Your task to perform on an android device: Turn on the flashlight Image 0: 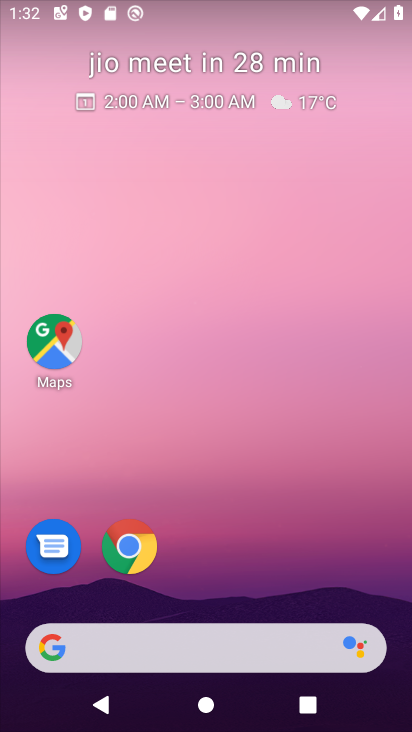
Step 0: drag from (300, 581) to (292, 382)
Your task to perform on an android device: Turn on the flashlight Image 1: 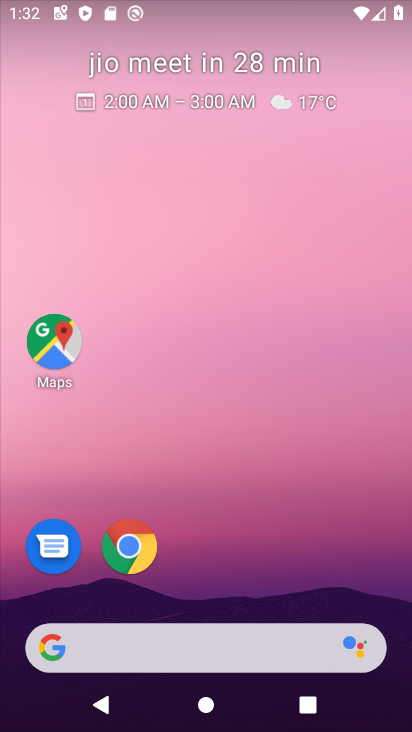
Step 1: drag from (293, 595) to (348, 75)
Your task to perform on an android device: Turn on the flashlight Image 2: 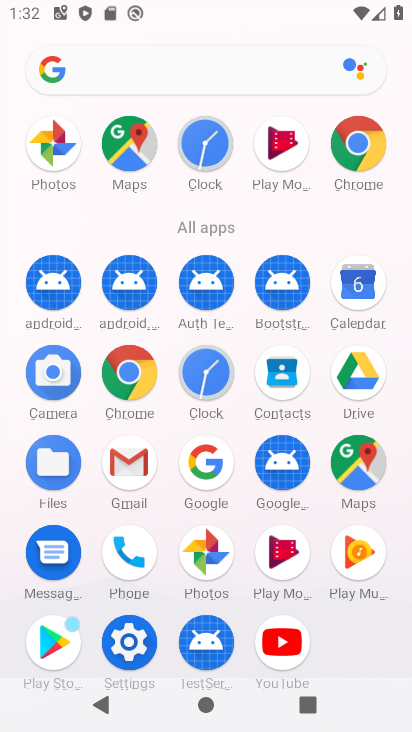
Step 2: click (146, 640)
Your task to perform on an android device: Turn on the flashlight Image 3: 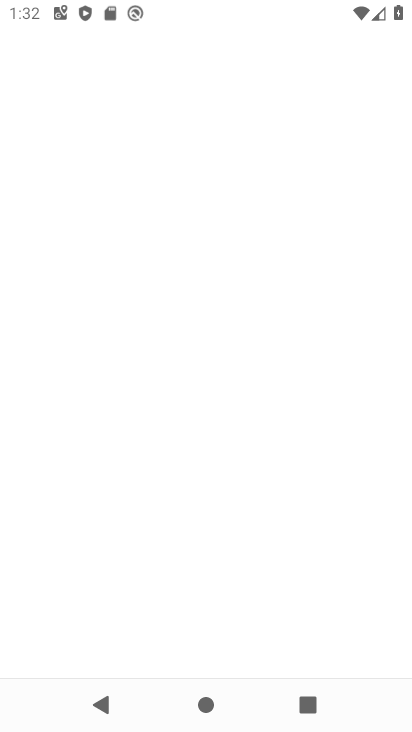
Step 3: task complete